Your task to perform on an android device: Search for apple airpods pro on target.com, select the first entry, and add it to the cart. Image 0: 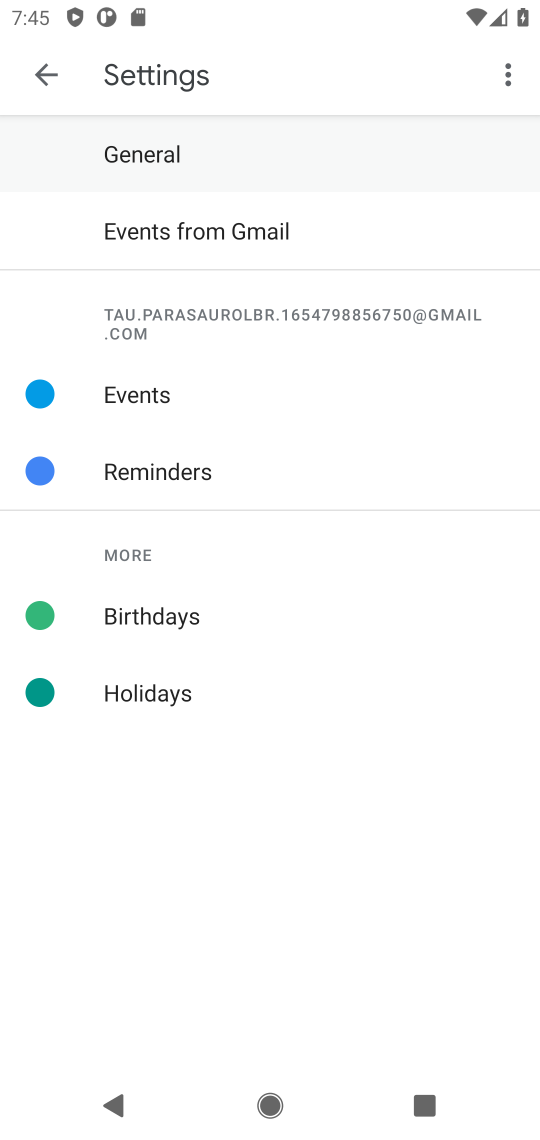
Step 0: press home button
Your task to perform on an android device: Search for apple airpods pro on target.com, select the first entry, and add it to the cart. Image 1: 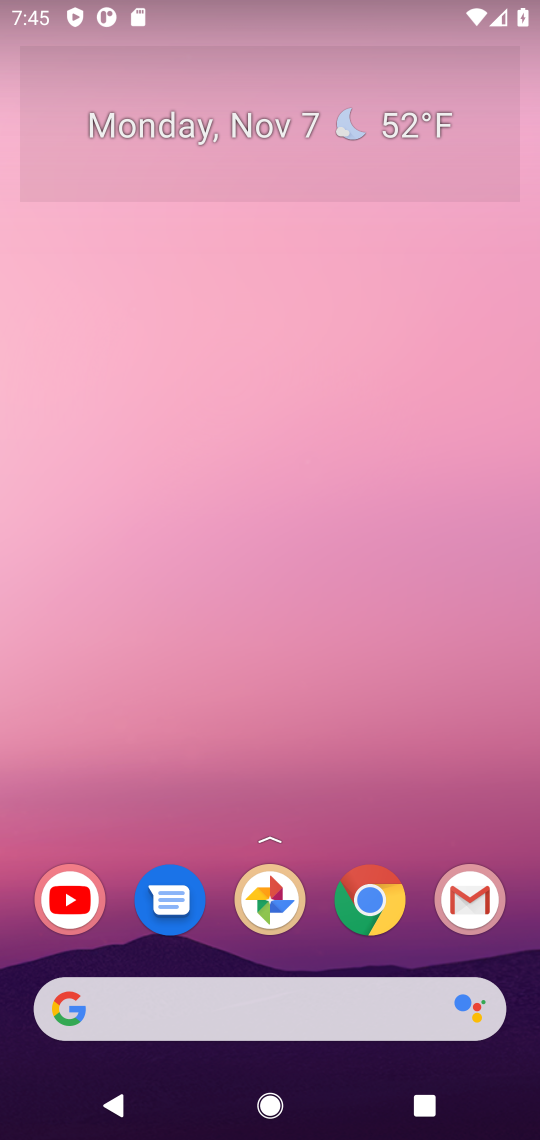
Step 1: click (309, 1008)
Your task to perform on an android device: Search for apple airpods pro on target.com, select the first entry, and add it to the cart. Image 2: 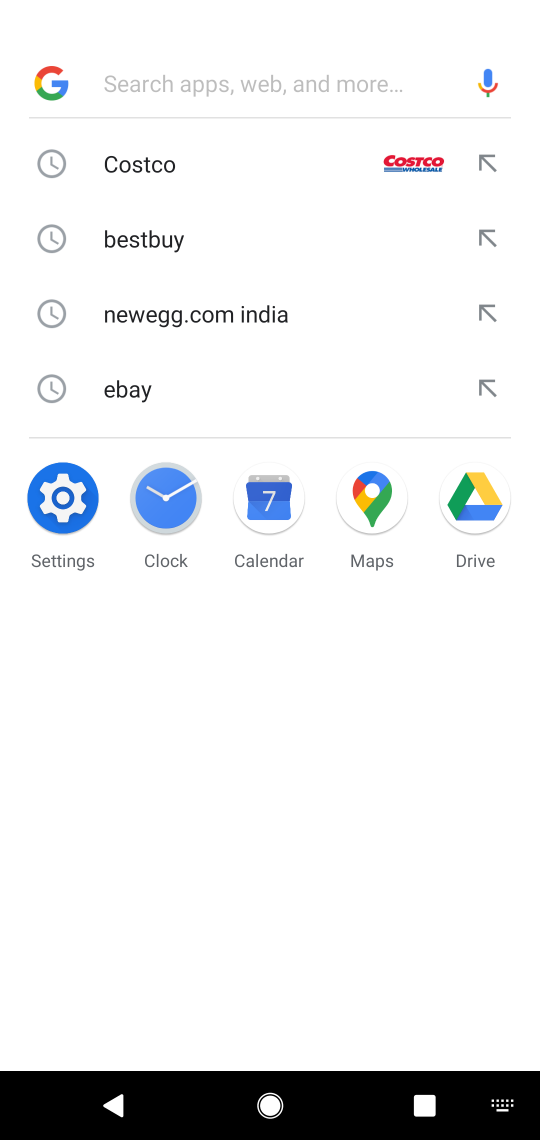
Step 2: type "target"
Your task to perform on an android device: Search for apple airpods pro on target.com, select the first entry, and add it to the cart. Image 3: 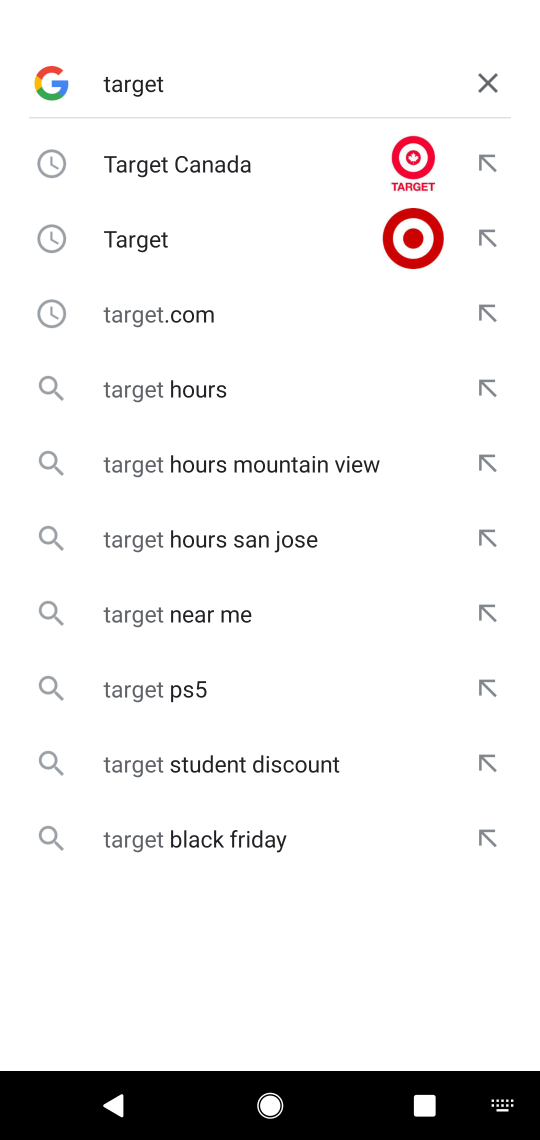
Step 3: click (177, 159)
Your task to perform on an android device: Search for apple airpods pro on target.com, select the first entry, and add it to the cart. Image 4: 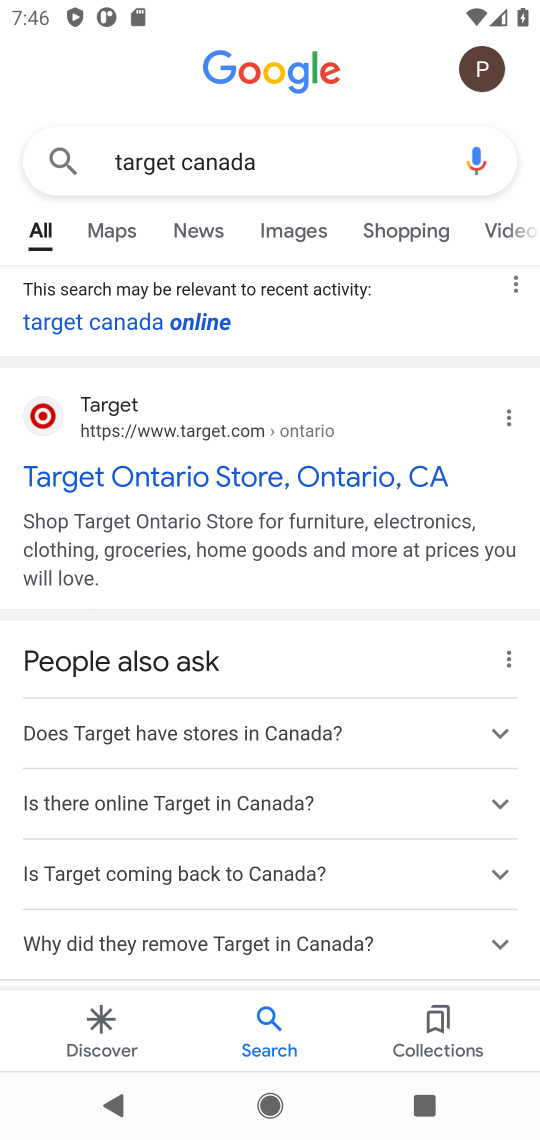
Step 4: click (298, 468)
Your task to perform on an android device: Search for apple airpods pro on target.com, select the first entry, and add it to the cart. Image 5: 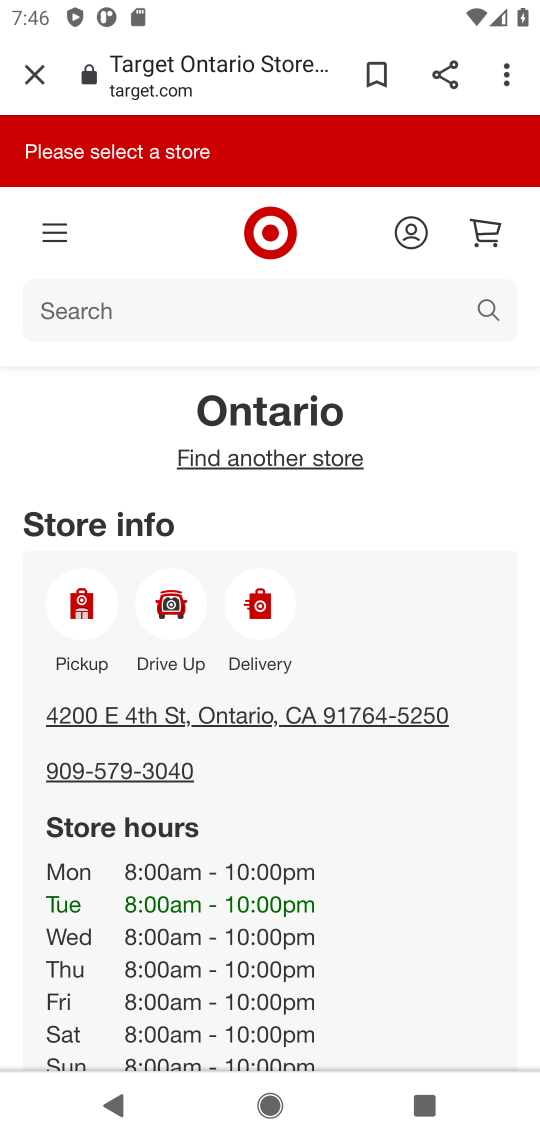
Step 5: click (349, 297)
Your task to perform on an android device: Search for apple airpods pro on target.com, select the first entry, and add it to the cart. Image 6: 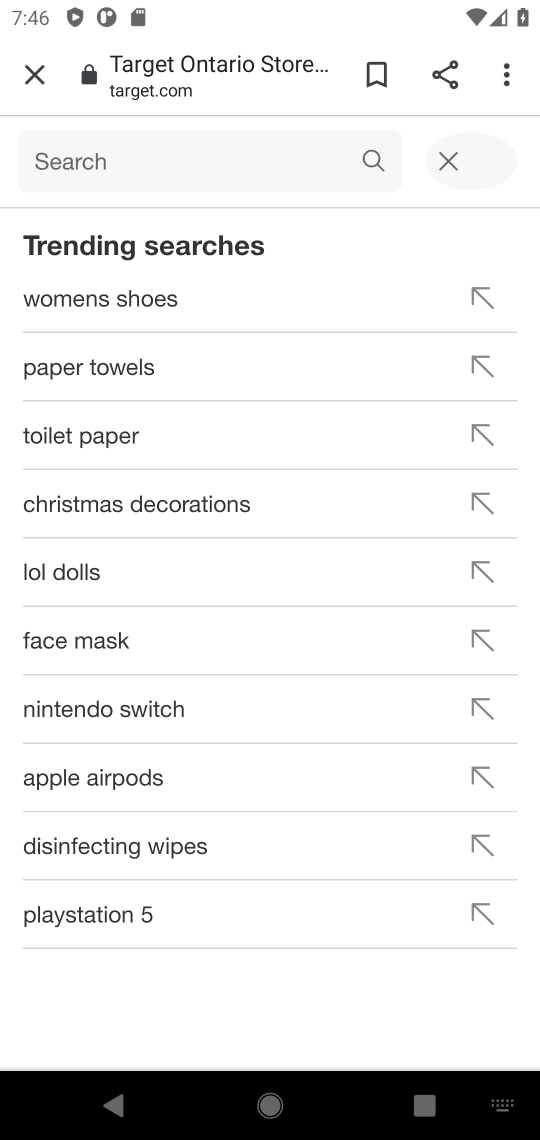
Step 6: type "apple airpods"
Your task to perform on an android device: Search for apple airpods pro on target.com, select the first entry, and add it to the cart. Image 7: 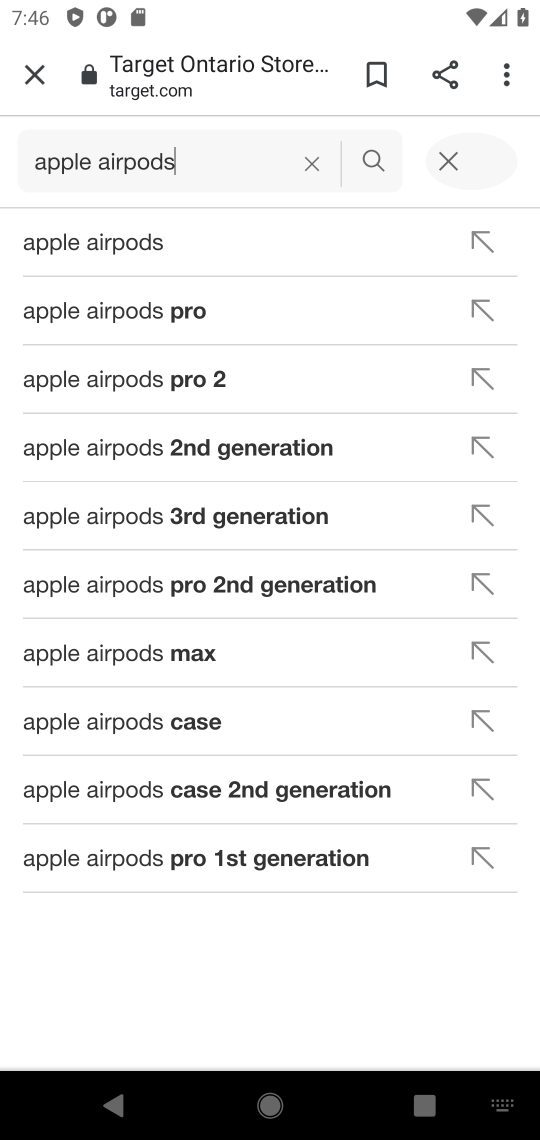
Step 7: click (198, 243)
Your task to perform on an android device: Search for apple airpods pro on target.com, select the first entry, and add it to the cart. Image 8: 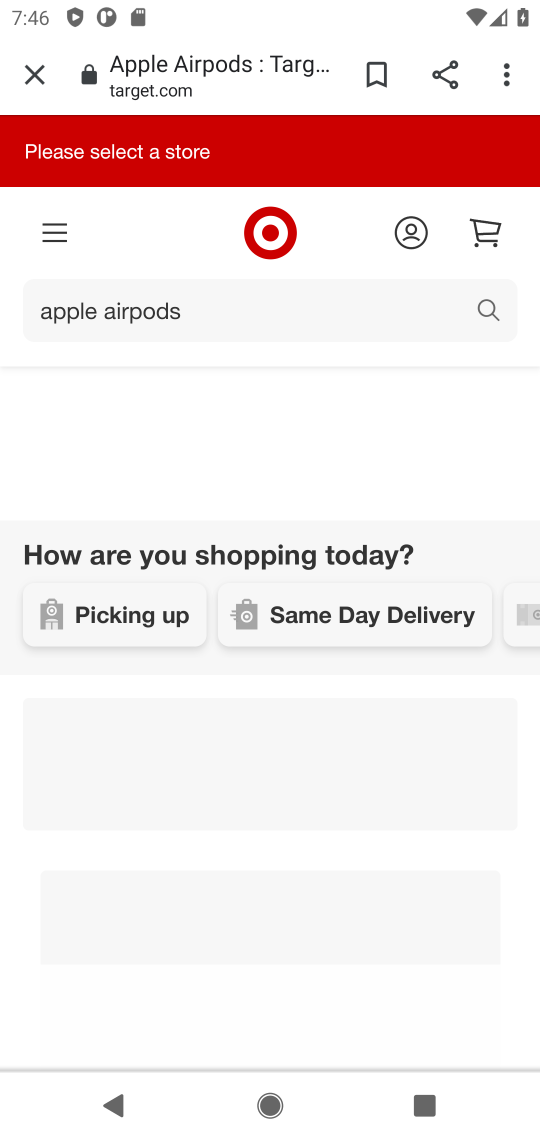
Step 8: task complete